Your task to perform on an android device: Open the Play Movies app and select the watchlist tab. Image 0: 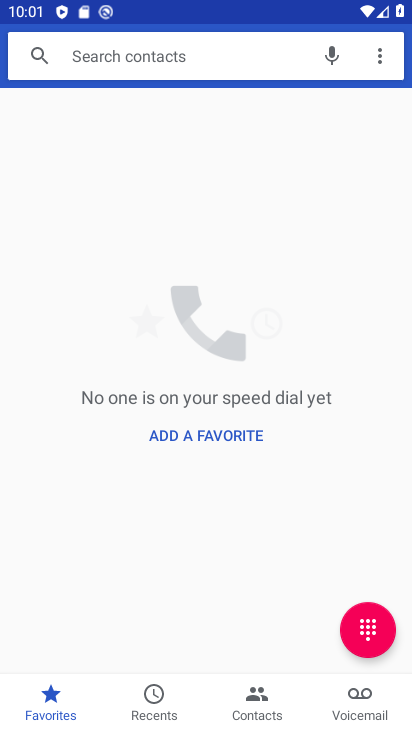
Step 0: press home button
Your task to perform on an android device: Open the Play Movies app and select the watchlist tab. Image 1: 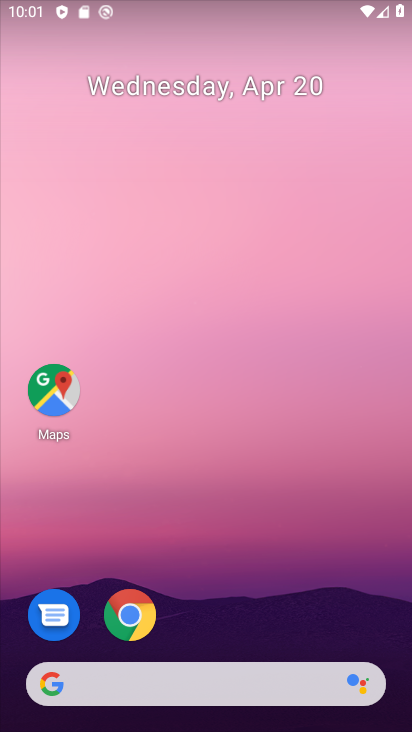
Step 1: drag from (314, 596) to (314, 134)
Your task to perform on an android device: Open the Play Movies app and select the watchlist tab. Image 2: 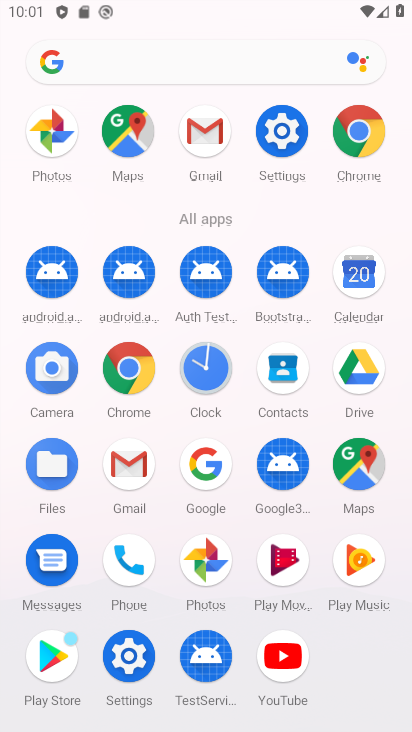
Step 2: click (262, 572)
Your task to perform on an android device: Open the Play Movies app and select the watchlist tab. Image 3: 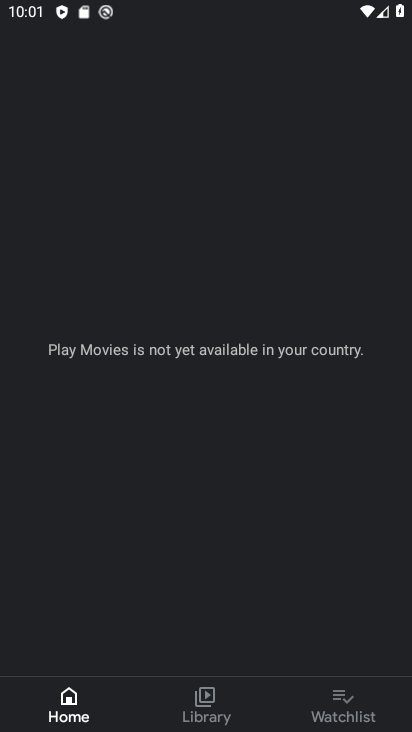
Step 3: click (349, 711)
Your task to perform on an android device: Open the Play Movies app and select the watchlist tab. Image 4: 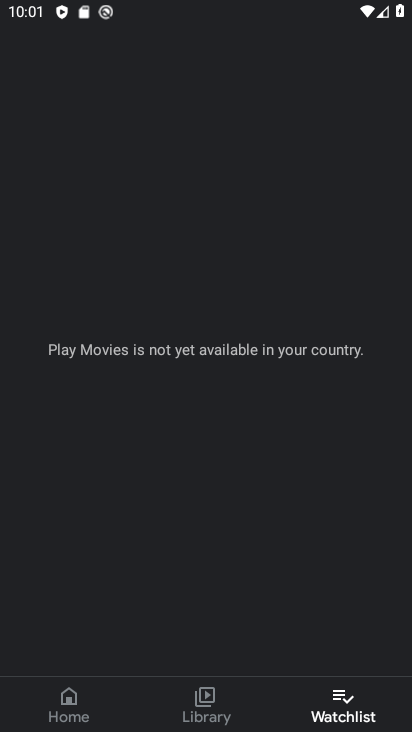
Step 4: task complete